Your task to perform on an android device: Go to network settings Image 0: 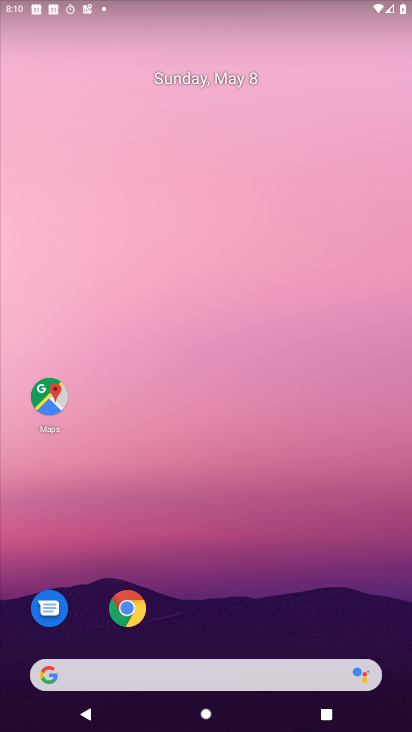
Step 0: drag from (208, 567) to (258, 150)
Your task to perform on an android device: Go to network settings Image 1: 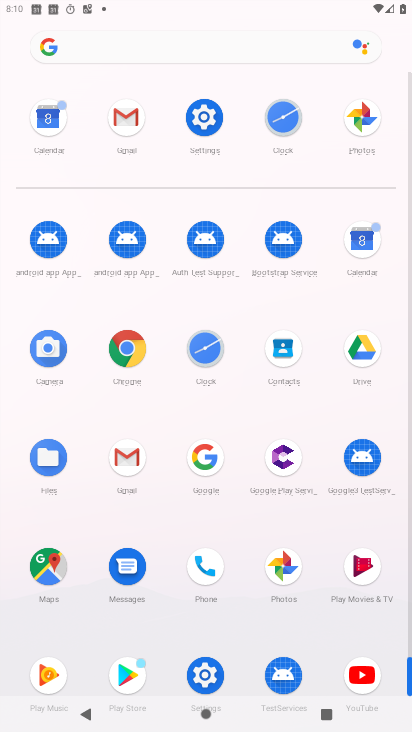
Step 1: click (210, 124)
Your task to perform on an android device: Go to network settings Image 2: 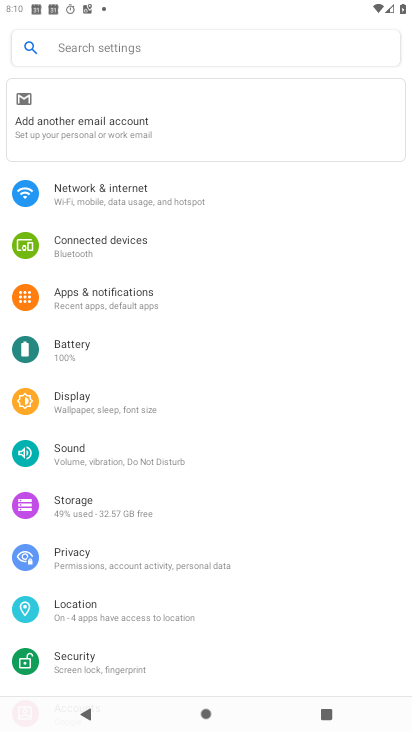
Step 2: click (139, 200)
Your task to perform on an android device: Go to network settings Image 3: 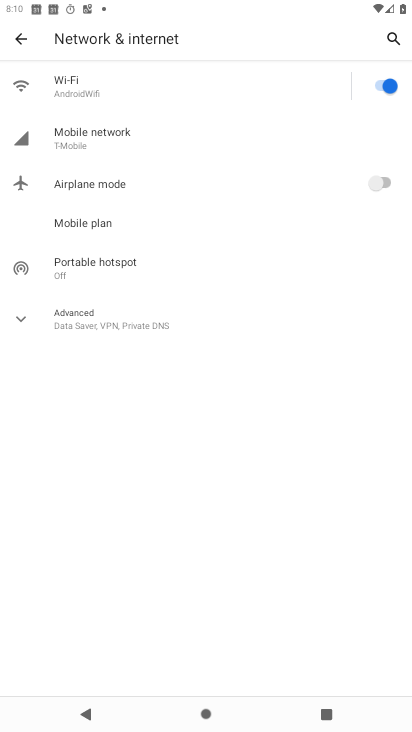
Step 3: task complete